Your task to perform on an android device: Set the phone to "Do not disturb". Image 0: 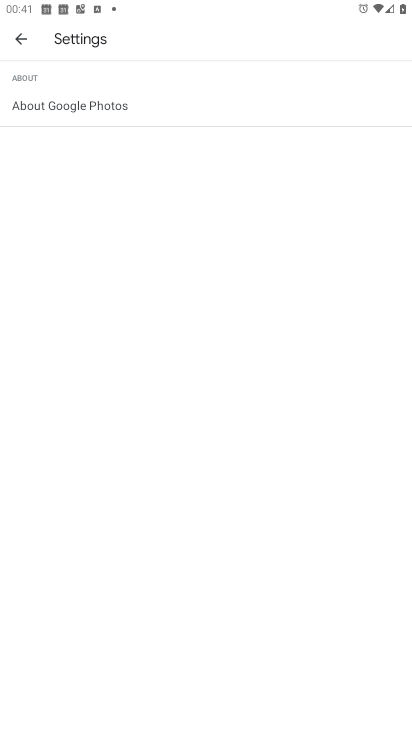
Step 0: press home button
Your task to perform on an android device: Set the phone to "Do not disturb". Image 1: 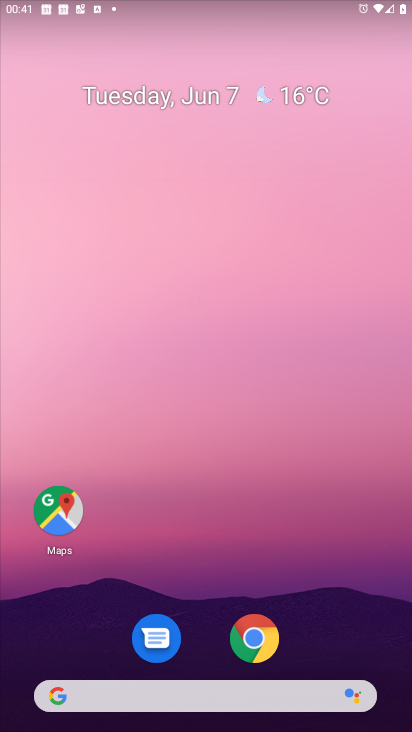
Step 1: drag from (228, 703) to (171, 206)
Your task to perform on an android device: Set the phone to "Do not disturb". Image 2: 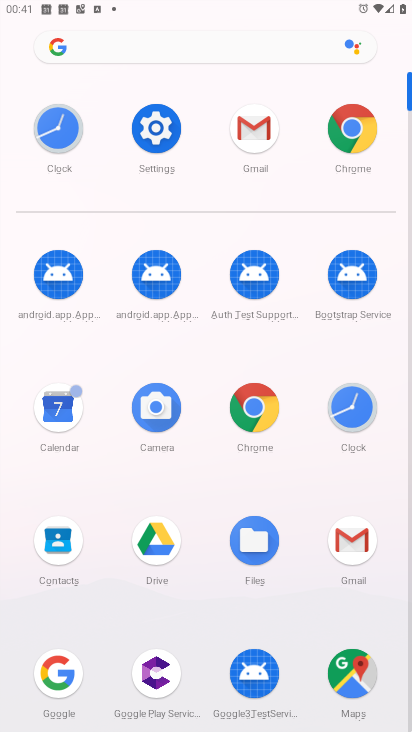
Step 2: click (163, 132)
Your task to perform on an android device: Set the phone to "Do not disturb". Image 3: 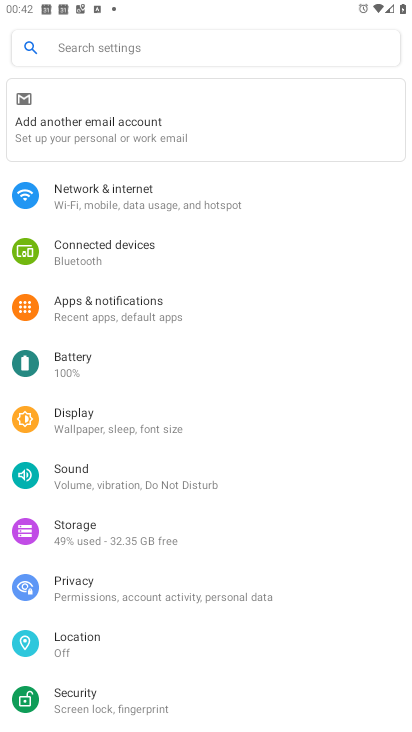
Step 3: click (109, 44)
Your task to perform on an android device: Set the phone to "Do not disturb". Image 4: 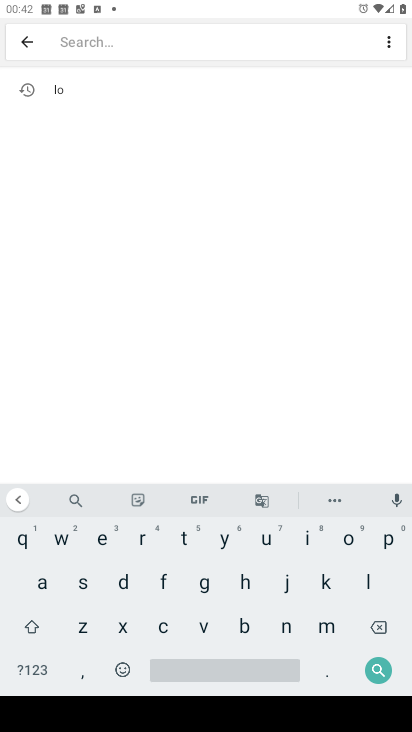
Step 4: click (120, 583)
Your task to perform on an android device: Set the phone to "Do not disturb". Image 5: 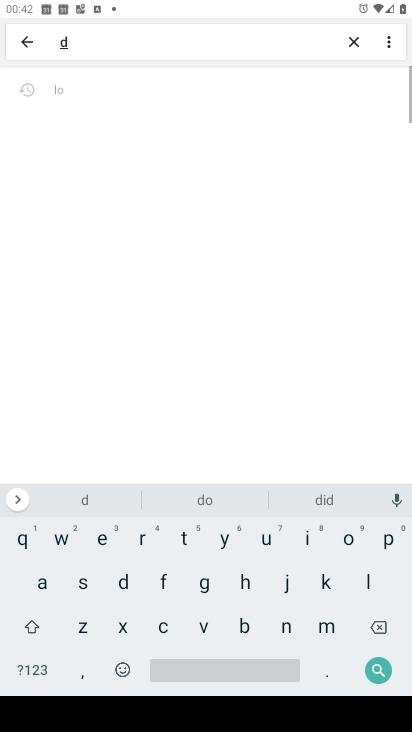
Step 5: click (282, 629)
Your task to perform on an android device: Set the phone to "Do not disturb". Image 6: 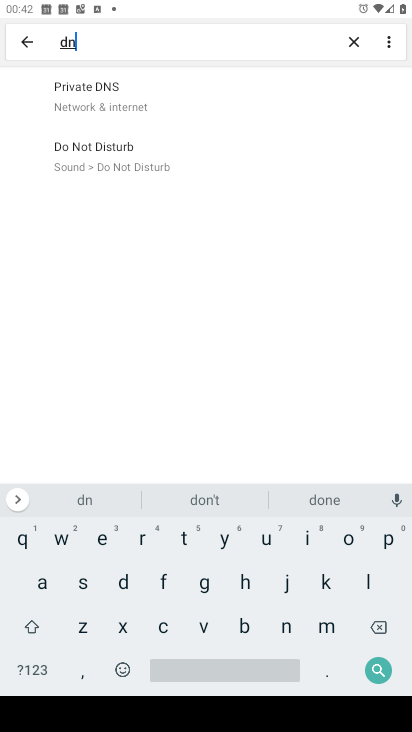
Step 6: click (115, 157)
Your task to perform on an android device: Set the phone to "Do not disturb". Image 7: 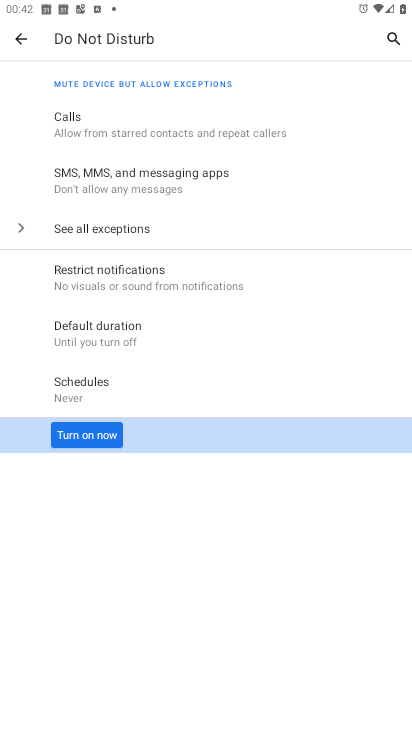
Step 7: click (68, 445)
Your task to perform on an android device: Set the phone to "Do not disturb". Image 8: 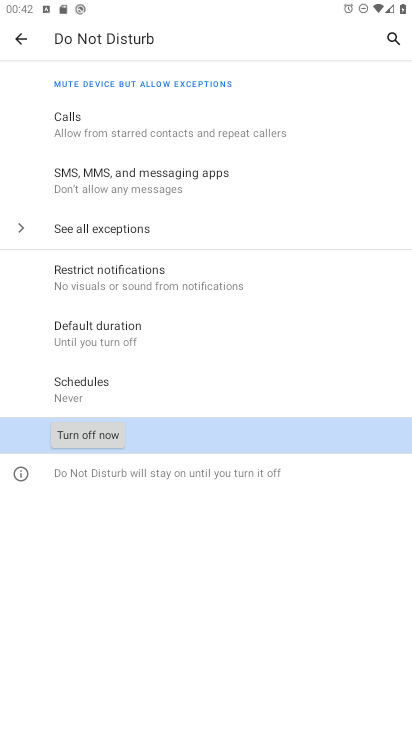
Step 8: task complete